Your task to perform on an android device: toggle notification dots Image 0: 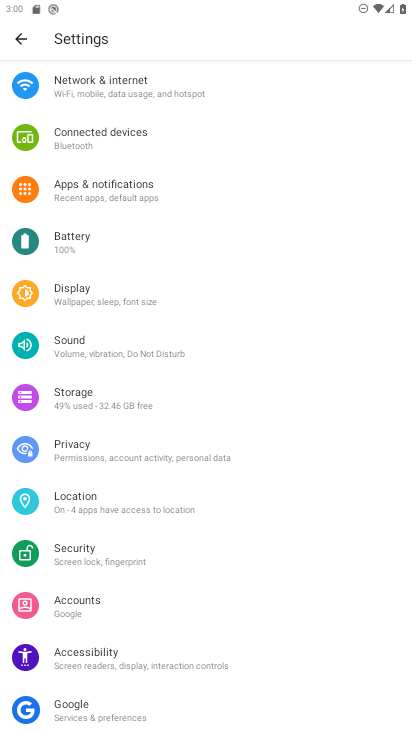
Step 0: press home button
Your task to perform on an android device: toggle notification dots Image 1: 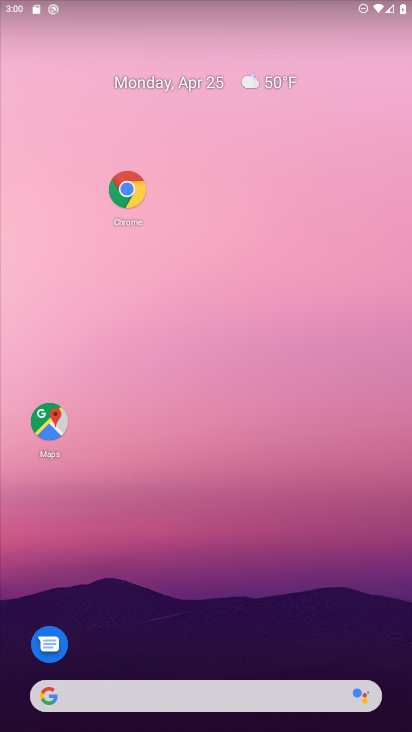
Step 1: drag from (172, 555) to (216, 167)
Your task to perform on an android device: toggle notification dots Image 2: 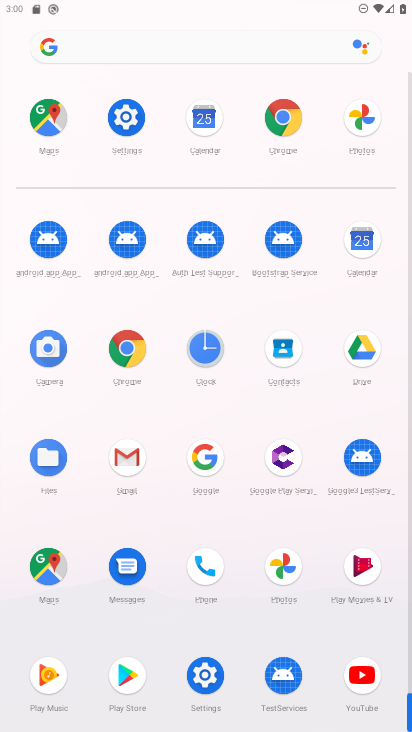
Step 2: click (202, 687)
Your task to perform on an android device: toggle notification dots Image 3: 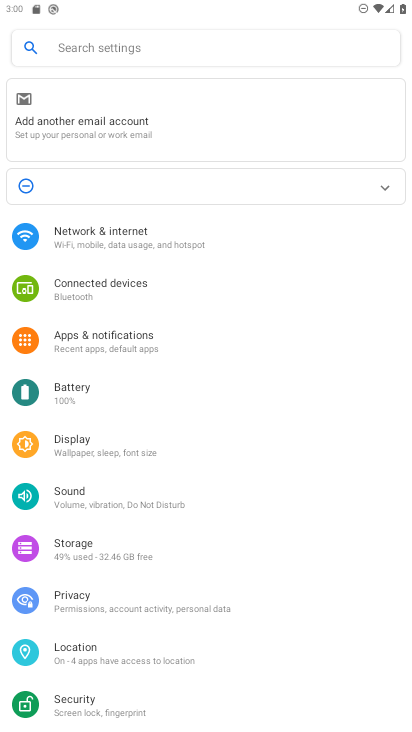
Step 3: click (151, 342)
Your task to perform on an android device: toggle notification dots Image 4: 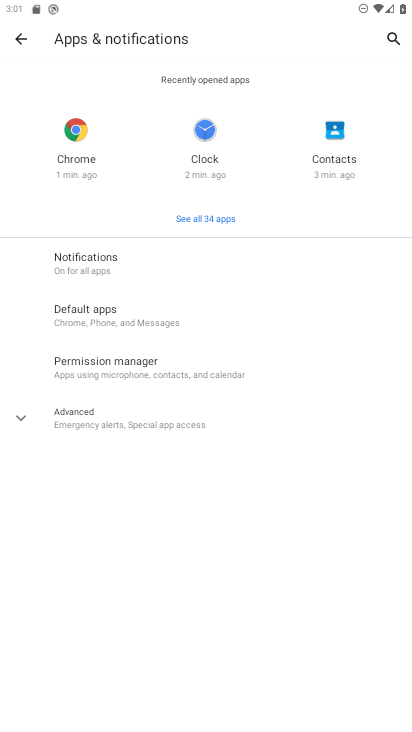
Step 4: click (147, 267)
Your task to perform on an android device: toggle notification dots Image 5: 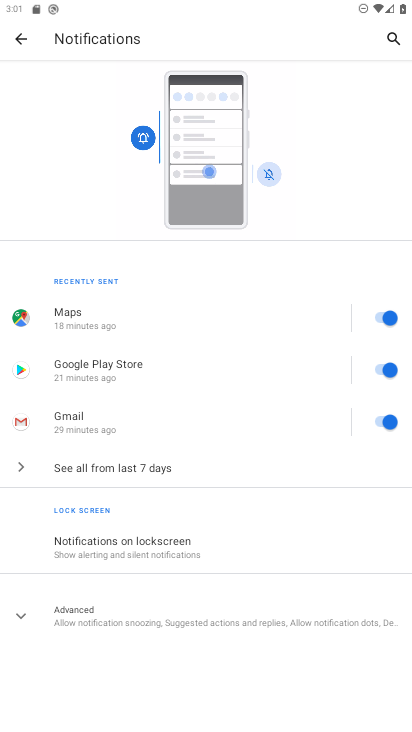
Step 5: click (162, 555)
Your task to perform on an android device: toggle notification dots Image 6: 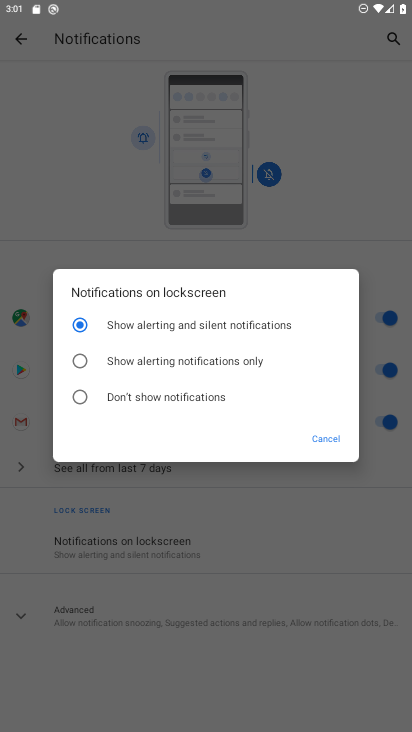
Step 6: click (328, 529)
Your task to perform on an android device: toggle notification dots Image 7: 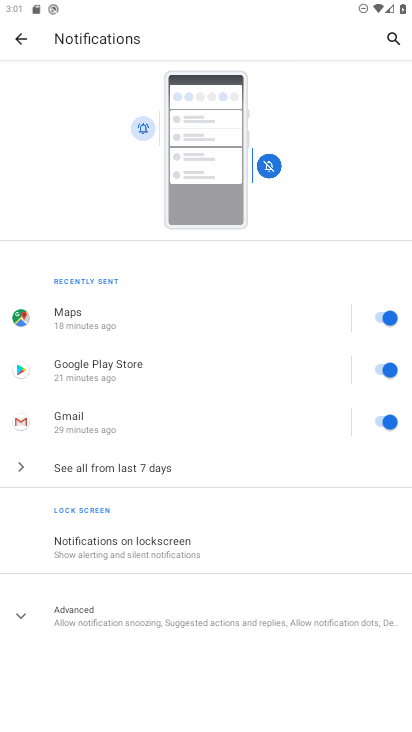
Step 7: click (28, 606)
Your task to perform on an android device: toggle notification dots Image 8: 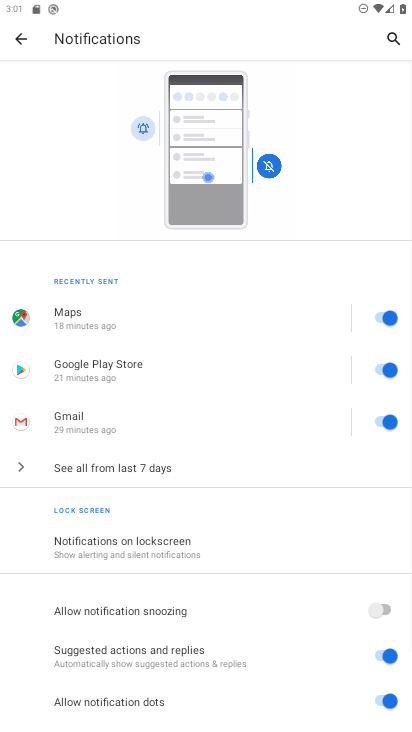
Step 8: drag from (199, 668) to (256, 437)
Your task to perform on an android device: toggle notification dots Image 9: 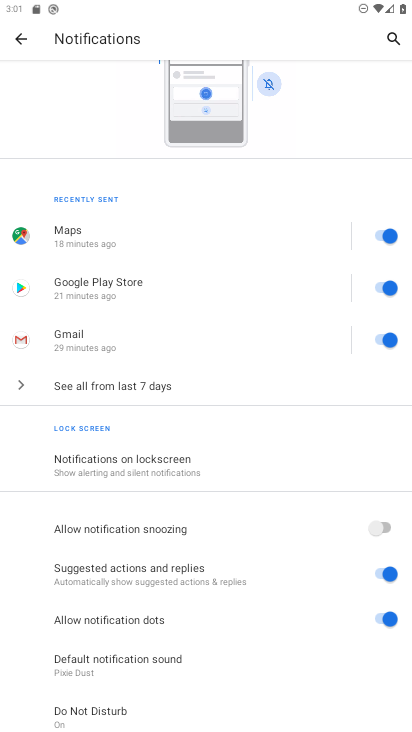
Step 9: click (387, 612)
Your task to perform on an android device: toggle notification dots Image 10: 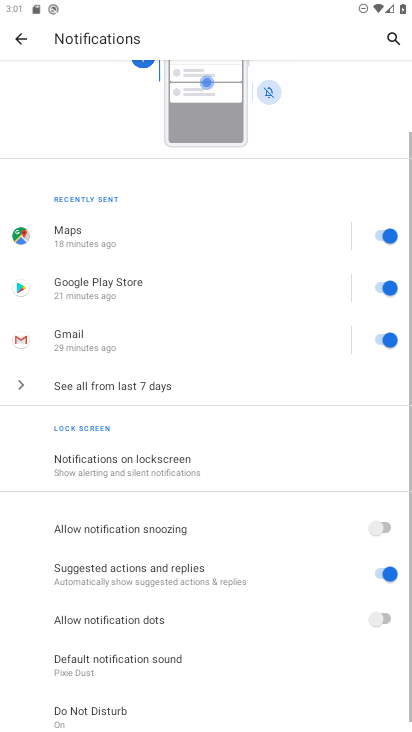
Step 10: task complete